Your task to perform on an android device: read, delete, or share a saved page in the chrome app Image 0: 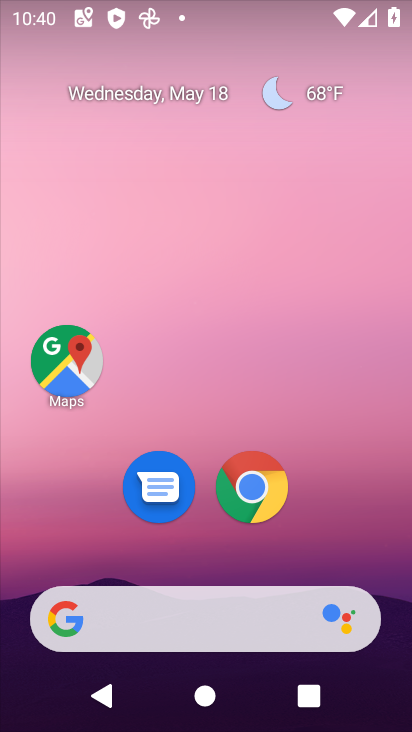
Step 0: drag from (310, 524) to (342, 257)
Your task to perform on an android device: read, delete, or share a saved page in the chrome app Image 1: 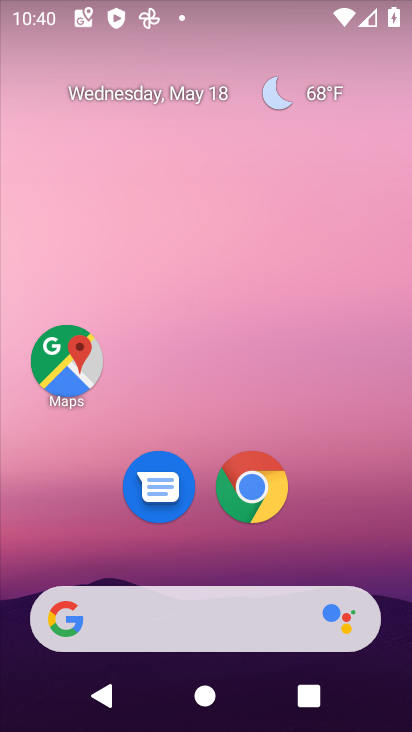
Step 1: drag from (334, 527) to (334, 106)
Your task to perform on an android device: read, delete, or share a saved page in the chrome app Image 2: 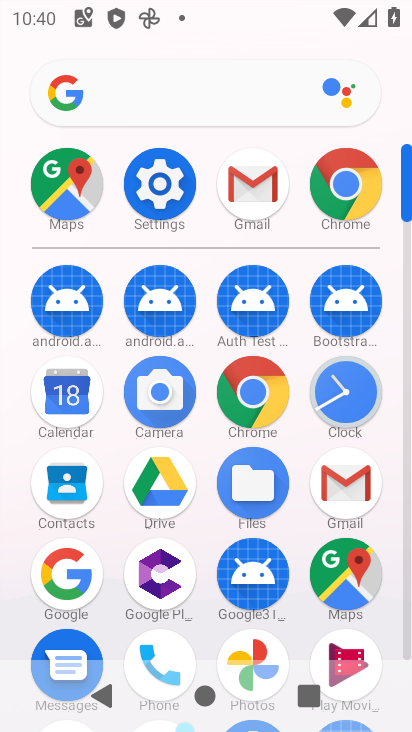
Step 2: click (250, 369)
Your task to perform on an android device: read, delete, or share a saved page in the chrome app Image 3: 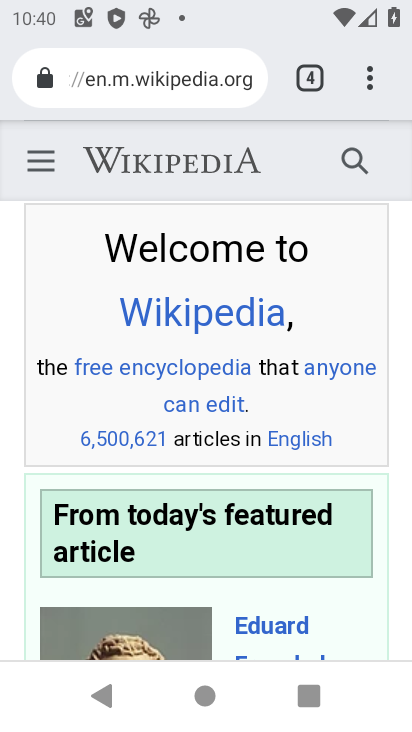
Step 3: task complete